Your task to perform on an android device: Open Google Image 0: 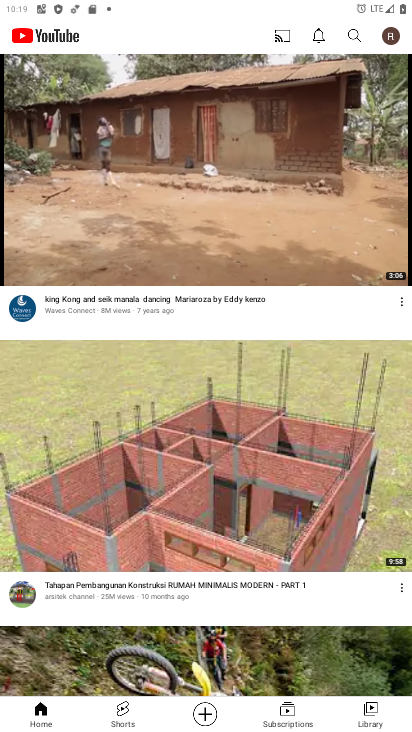
Step 0: drag from (220, 604) to (295, 190)
Your task to perform on an android device: Open Google Image 1: 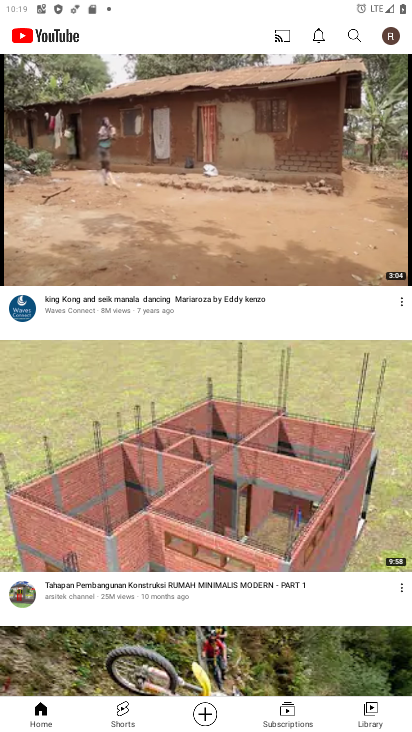
Step 1: press home button
Your task to perform on an android device: Open Google Image 2: 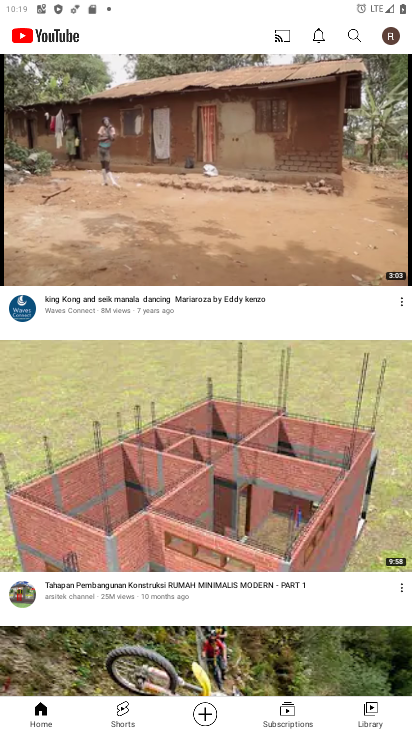
Step 2: click (296, 142)
Your task to perform on an android device: Open Google Image 3: 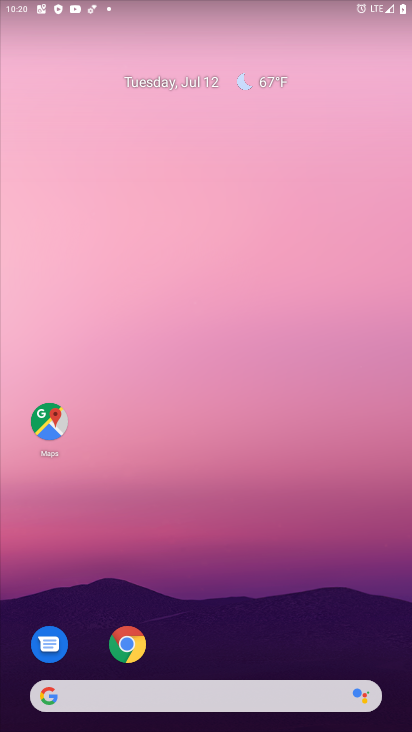
Step 3: drag from (213, 295) to (244, 58)
Your task to perform on an android device: Open Google Image 4: 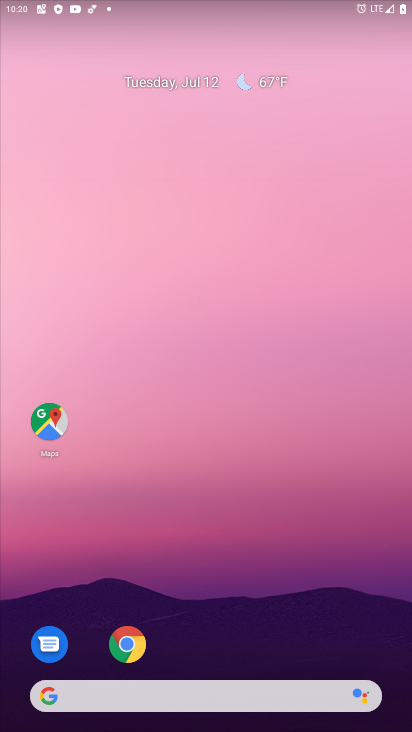
Step 4: drag from (202, 630) to (279, 125)
Your task to perform on an android device: Open Google Image 5: 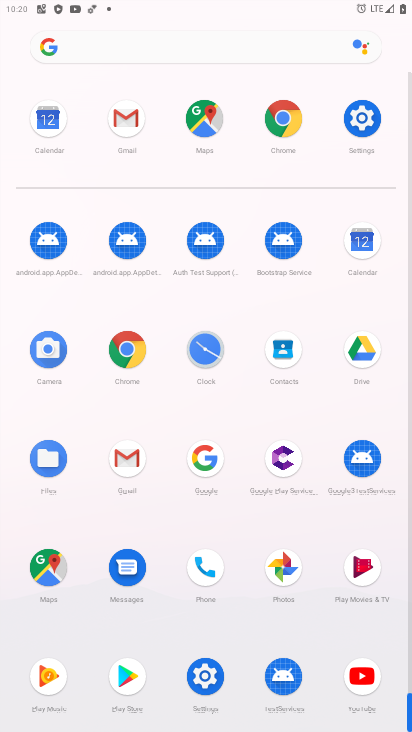
Step 5: click (341, 117)
Your task to perform on an android device: Open Google Image 6: 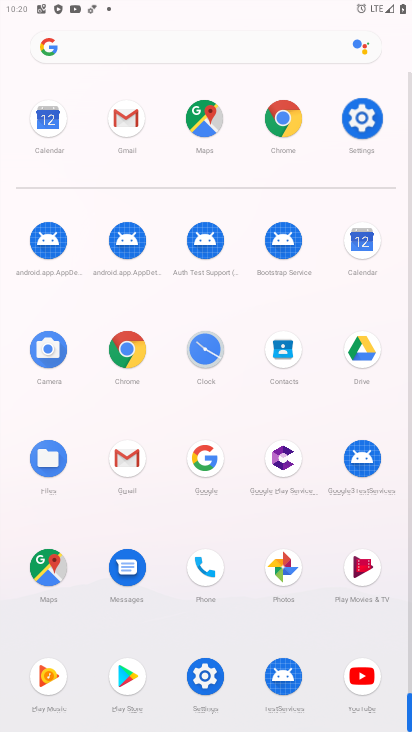
Step 6: click (346, 109)
Your task to perform on an android device: Open Google Image 7: 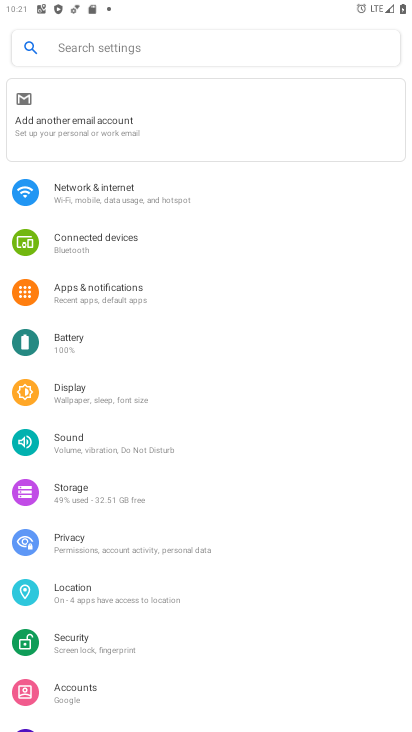
Step 7: press home button
Your task to perform on an android device: Open Google Image 8: 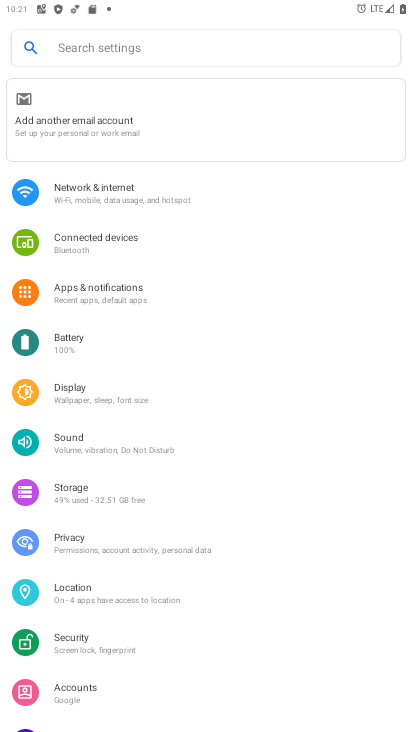
Step 8: drag from (234, 506) to (355, 6)
Your task to perform on an android device: Open Google Image 9: 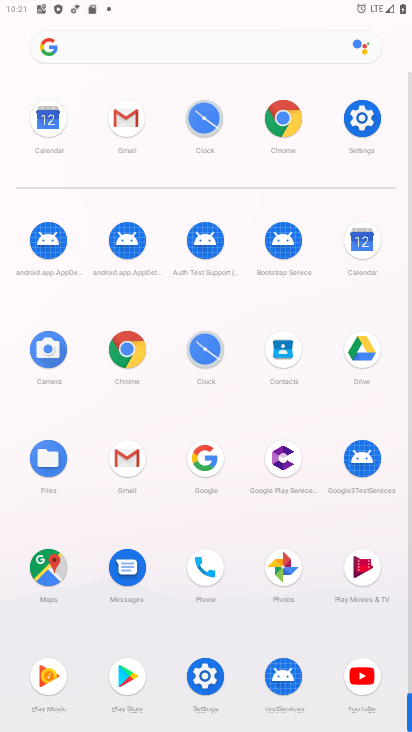
Step 9: click (200, 467)
Your task to perform on an android device: Open Google Image 10: 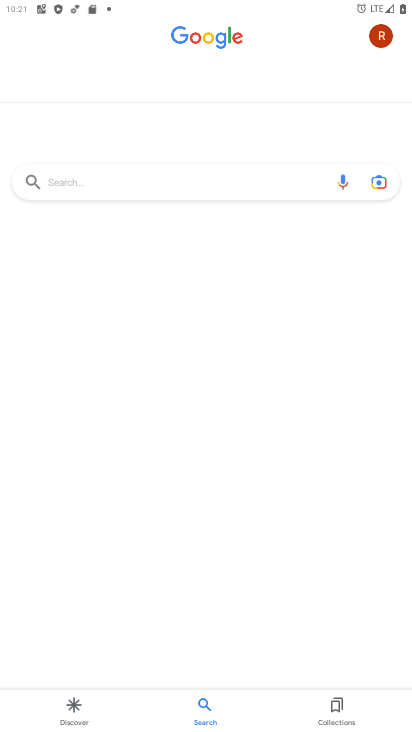
Step 10: task complete